Your task to perform on an android device: add a contact in the contacts app Image 0: 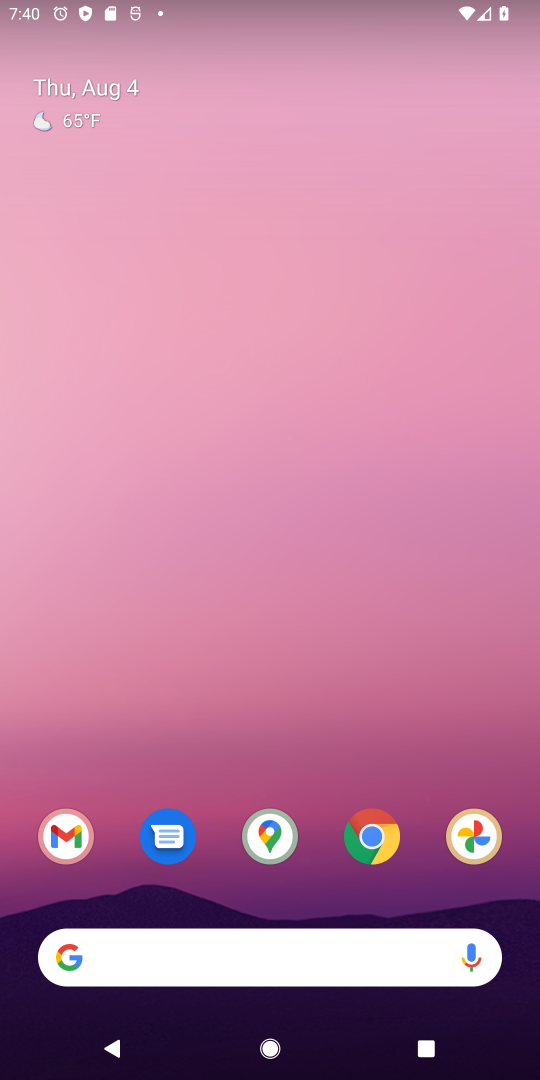
Step 0: drag from (266, 615) to (322, 133)
Your task to perform on an android device: add a contact in the contacts app Image 1: 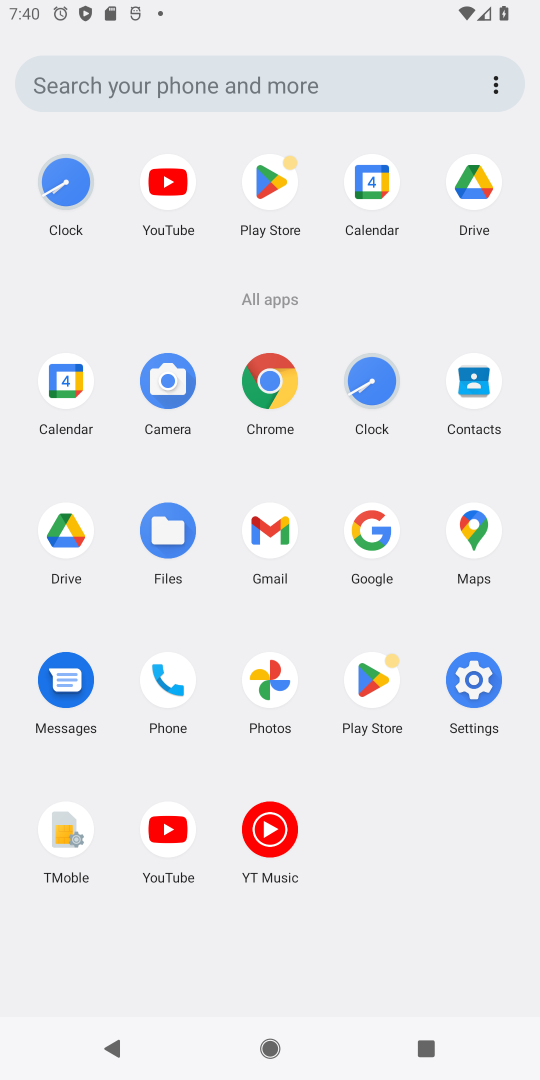
Step 1: click (489, 373)
Your task to perform on an android device: add a contact in the contacts app Image 2: 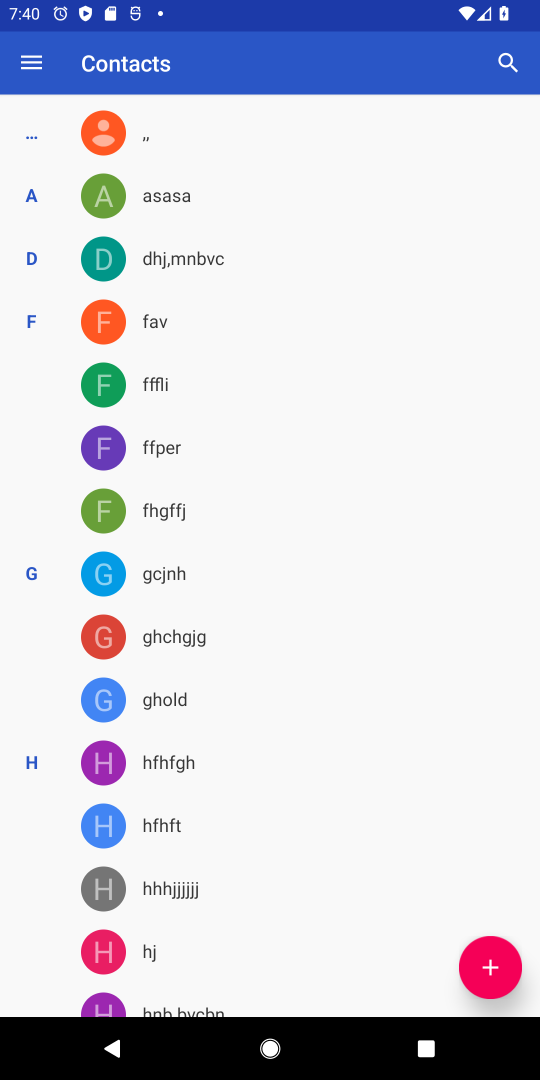
Step 2: click (471, 975)
Your task to perform on an android device: add a contact in the contacts app Image 3: 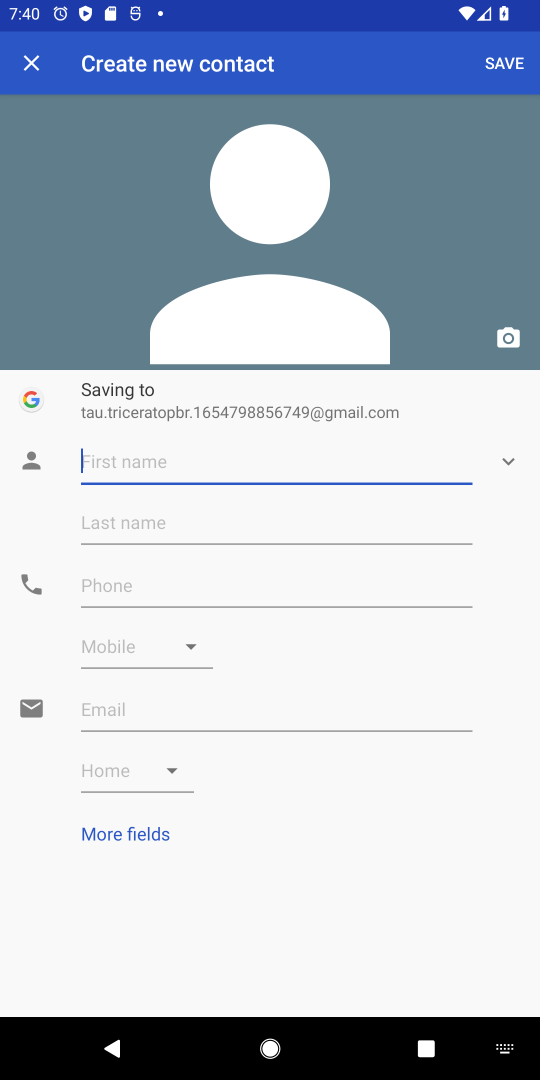
Step 3: click (143, 456)
Your task to perform on an android device: add a contact in the contacts app Image 4: 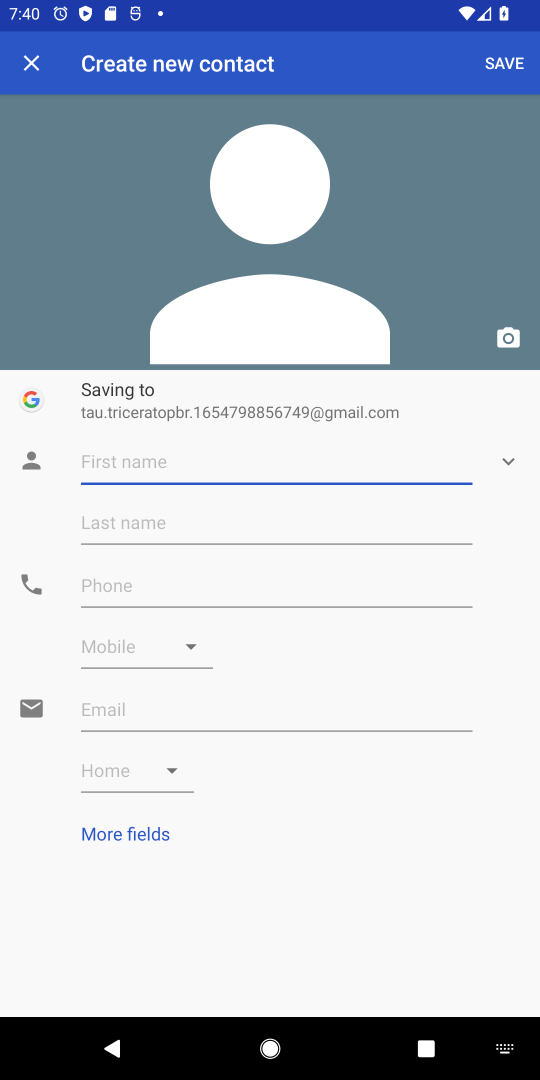
Step 4: type "bgfbfg"
Your task to perform on an android device: add a contact in the contacts app Image 5: 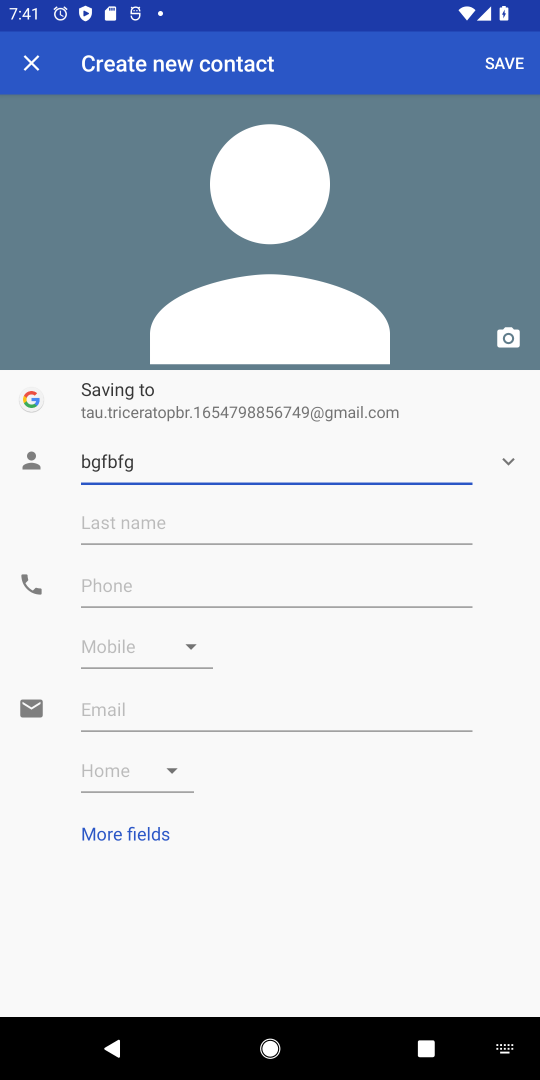
Step 5: click (104, 577)
Your task to perform on an android device: add a contact in the contacts app Image 6: 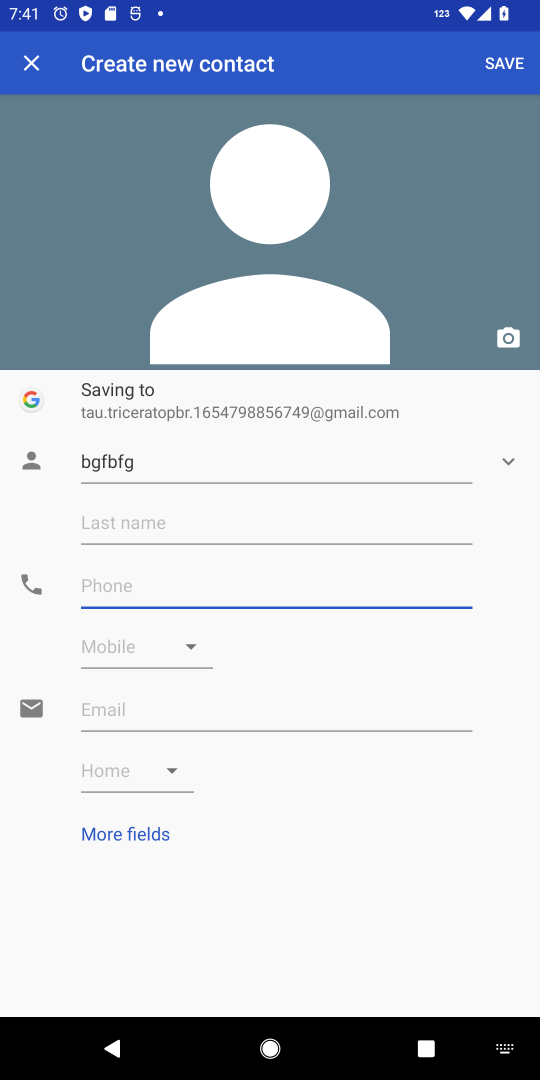
Step 6: type "7776"
Your task to perform on an android device: add a contact in the contacts app Image 7: 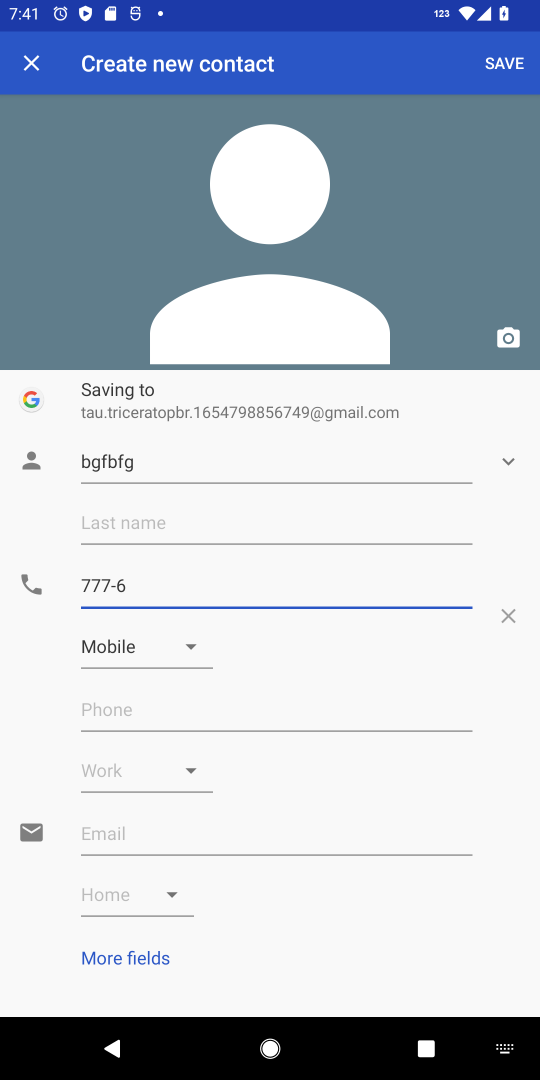
Step 7: click (494, 70)
Your task to perform on an android device: add a contact in the contacts app Image 8: 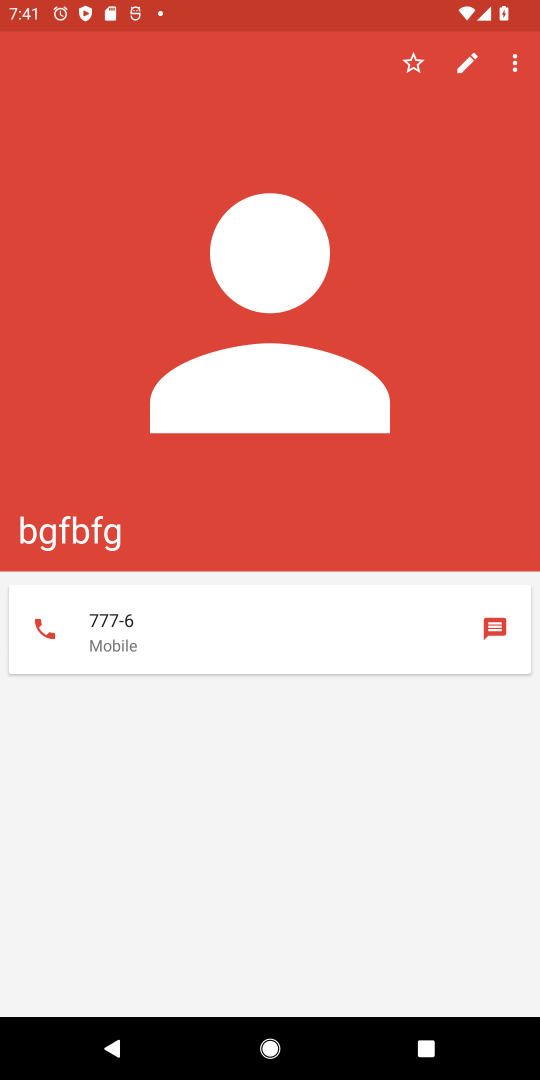
Step 8: task complete